Your task to perform on an android device: toggle location history Image 0: 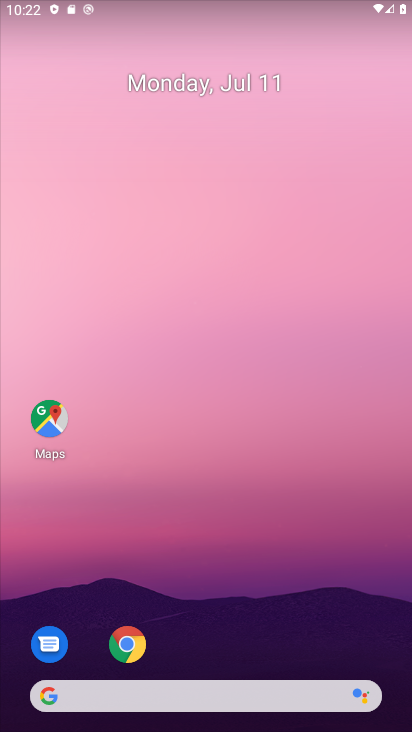
Step 0: drag from (180, 338) to (171, 273)
Your task to perform on an android device: toggle location history Image 1: 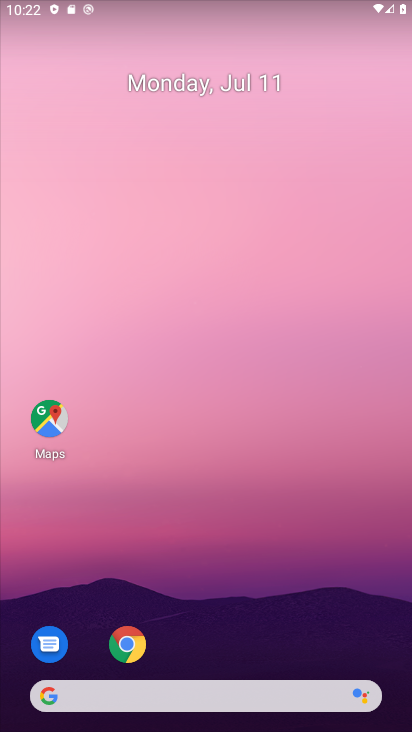
Step 1: drag from (187, 516) to (179, 105)
Your task to perform on an android device: toggle location history Image 2: 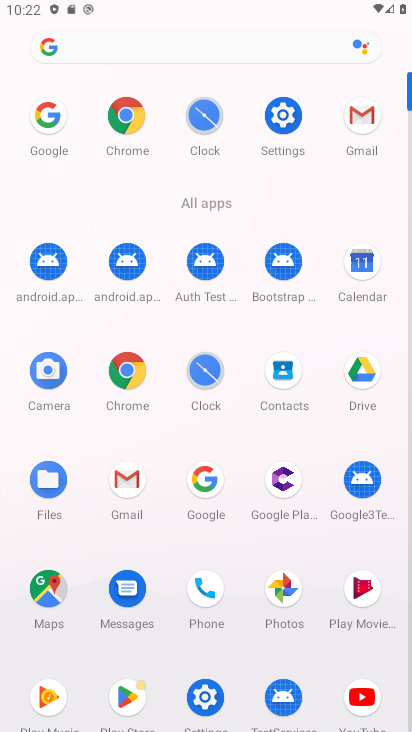
Step 2: click (276, 120)
Your task to perform on an android device: toggle location history Image 3: 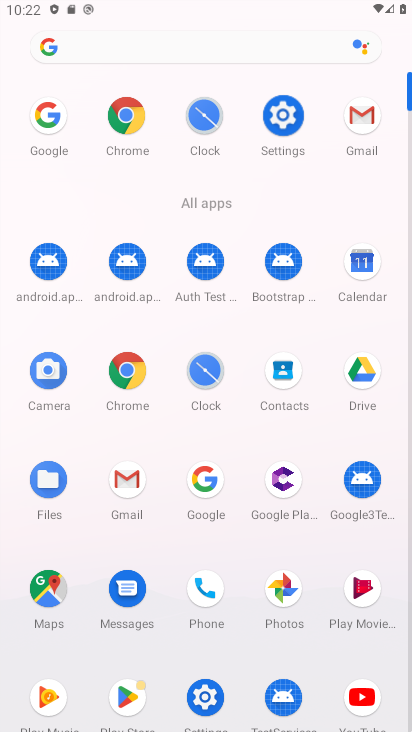
Step 3: click (274, 118)
Your task to perform on an android device: toggle location history Image 4: 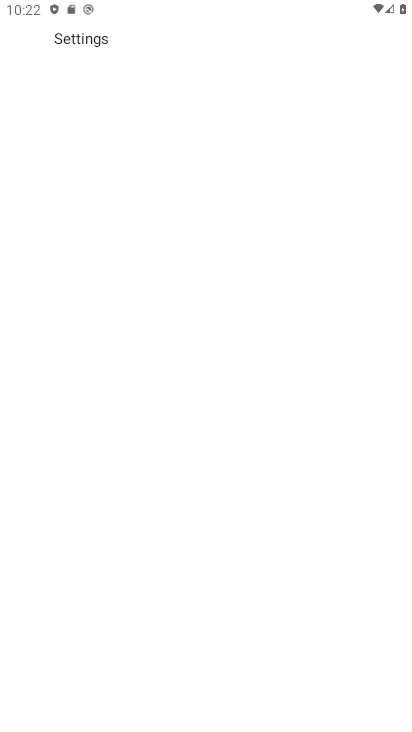
Step 4: click (277, 123)
Your task to perform on an android device: toggle location history Image 5: 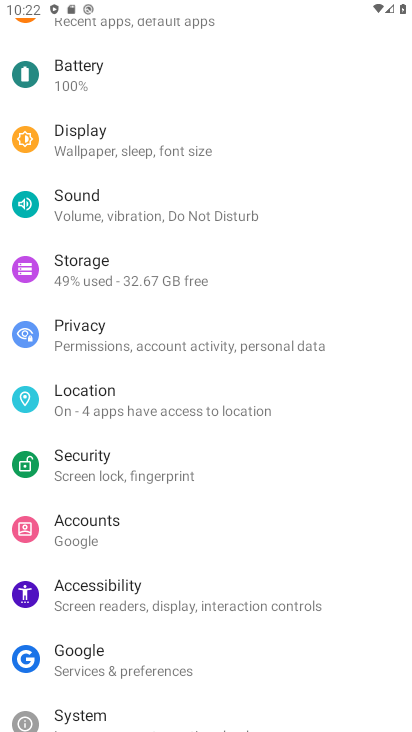
Step 5: drag from (158, 612) to (150, 220)
Your task to perform on an android device: toggle location history Image 6: 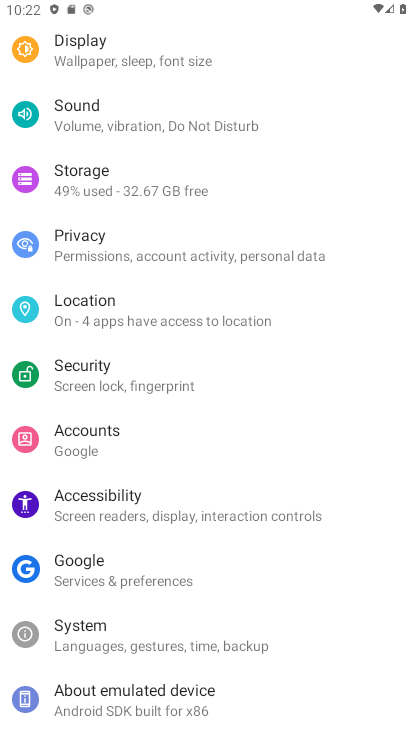
Step 6: click (86, 287)
Your task to perform on an android device: toggle location history Image 7: 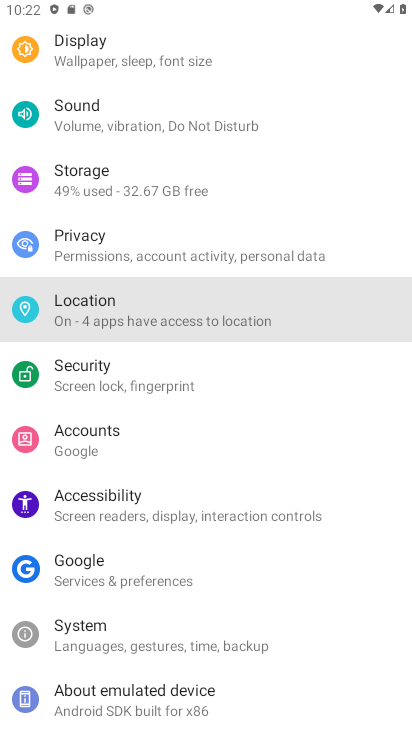
Step 7: click (89, 312)
Your task to perform on an android device: toggle location history Image 8: 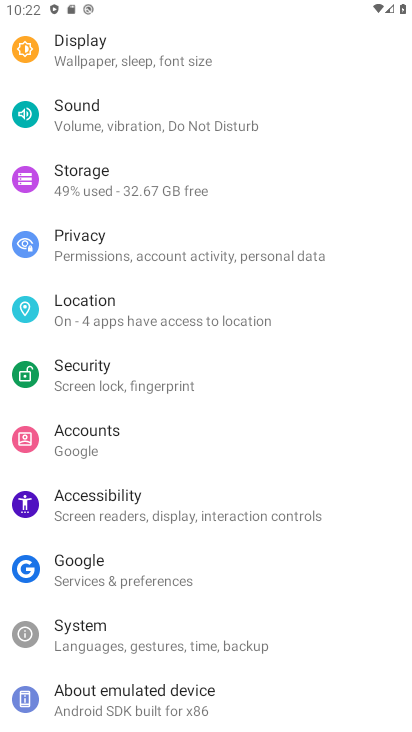
Step 8: click (90, 313)
Your task to perform on an android device: toggle location history Image 9: 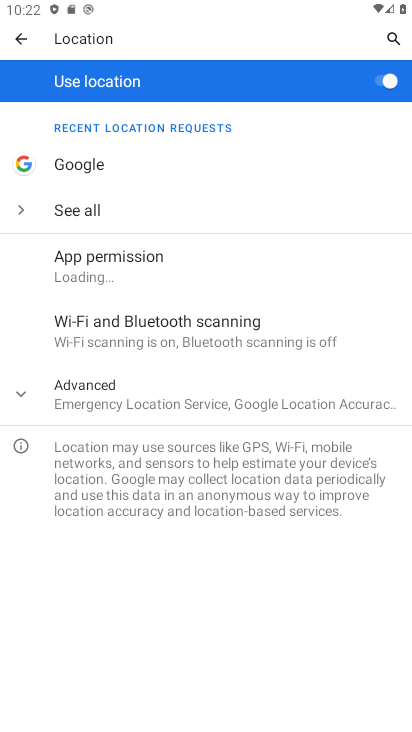
Step 9: click (82, 391)
Your task to perform on an android device: toggle location history Image 10: 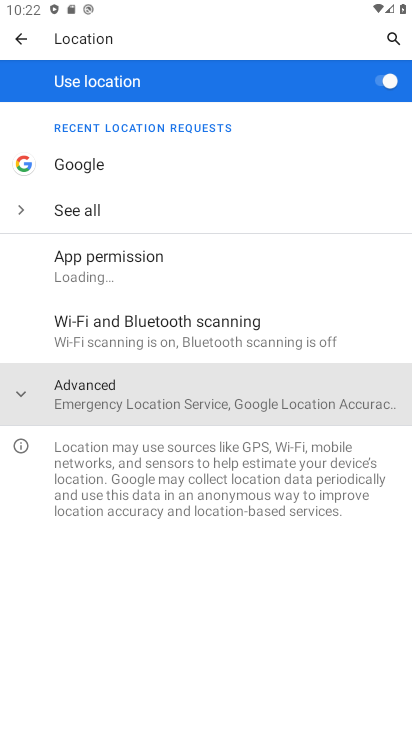
Step 10: click (79, 392)
Your task to perform on an android device: toggle location history Image 11: 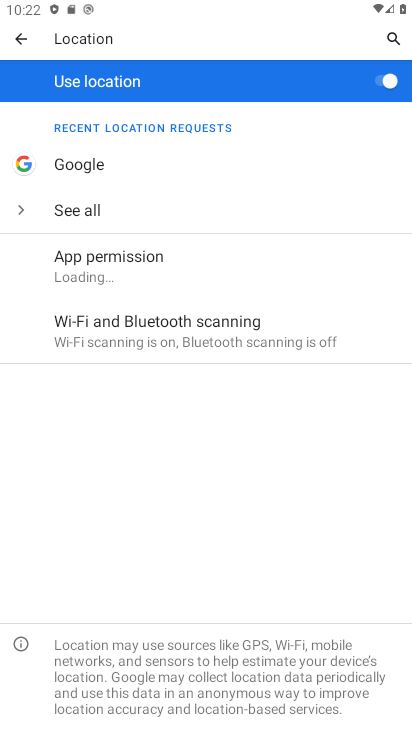
Step 11: click (78, 395)
Your task to perform on an android device: toggle location history Image 12: 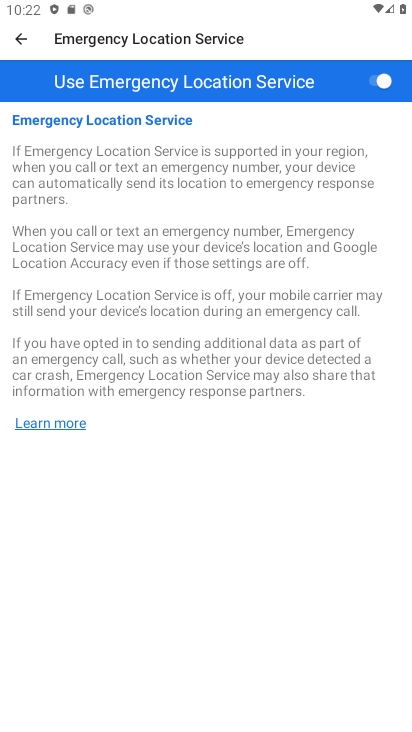
Step 12: click (16, 28)
Your task to perform on an android device: toggle location history Image 13: 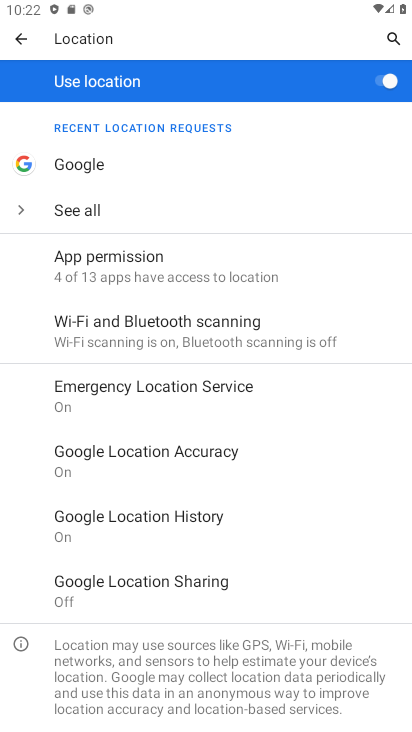
Step 13: click (161, 516)
Your task to perform on an android device: toggle location history Image 14: 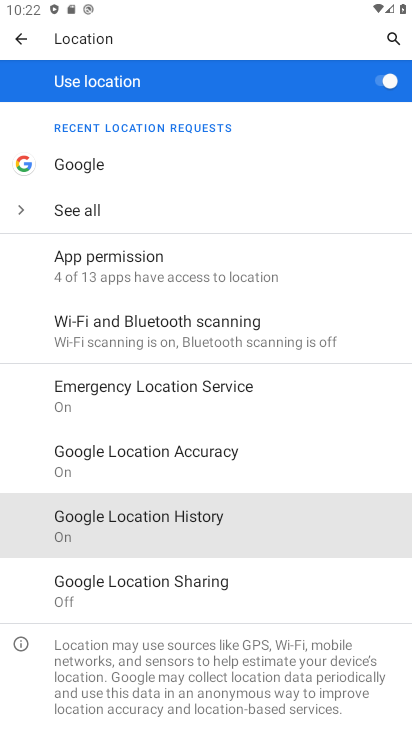
Step 14: click (161, 516)
Your task to perform on an android device: toggle location history Image 15: 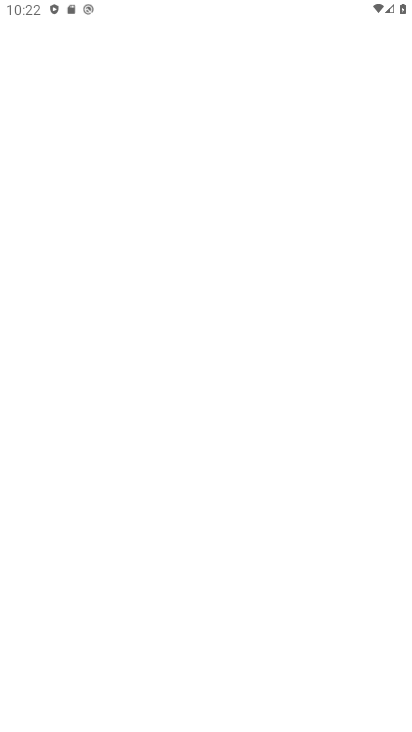
Step 15: click (156, 516)
Your task to perform on an android device: toggle location history Image 16: 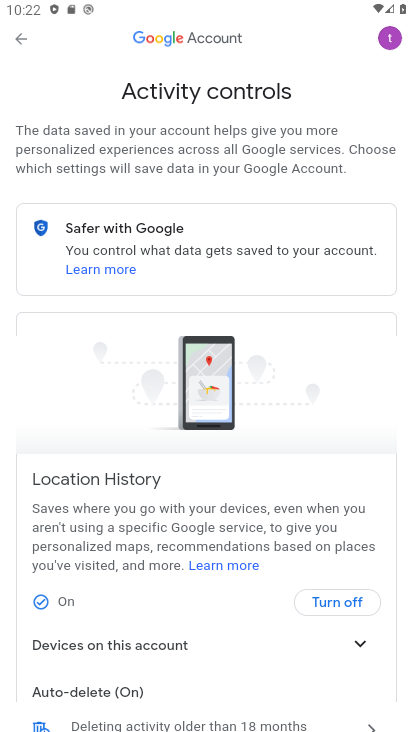
Step 16: click (349, 596)
Your task to perform on an android device: toggle location history Image 17: 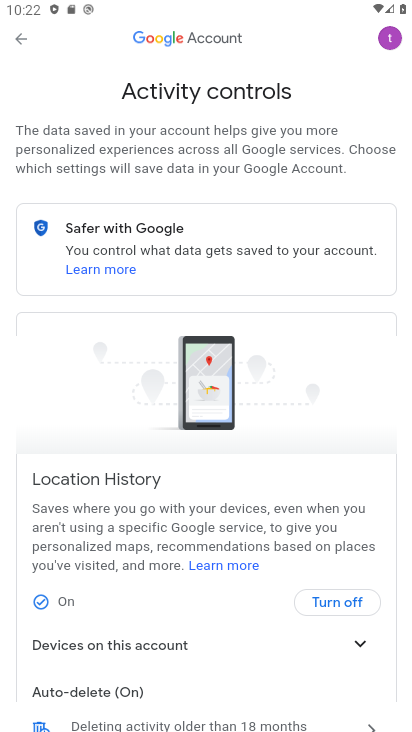
Step 17: click (349, 608)
Your task to perform on an android device: toggle location history Image 18: 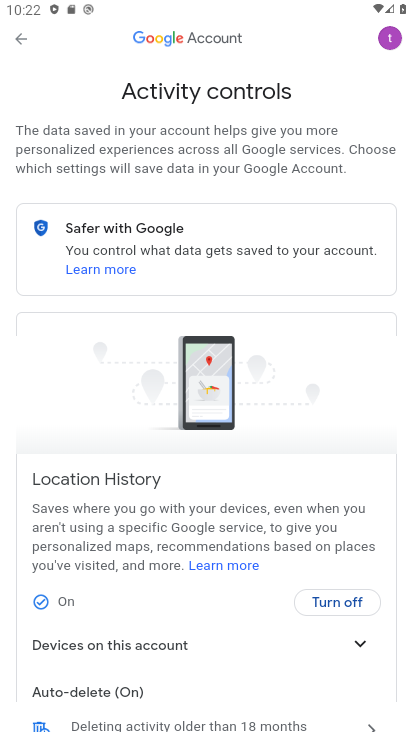
Step 18: click (348, 609)
Your task to perform on an android device: toggle location history Image 19: 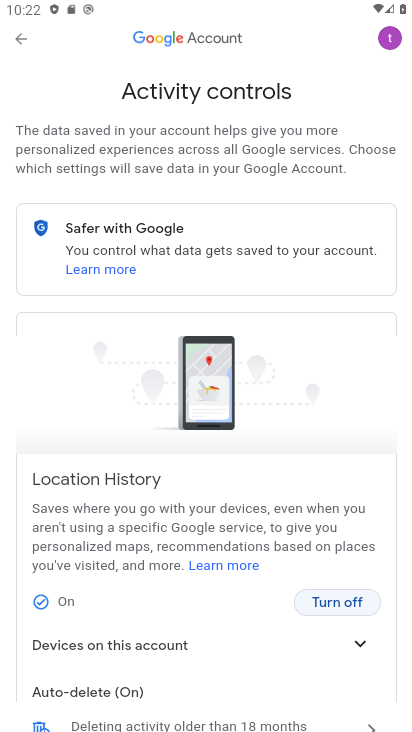
Step 19: click (348, 609)
Your task to perform on an android device: toggle location history Image 20: 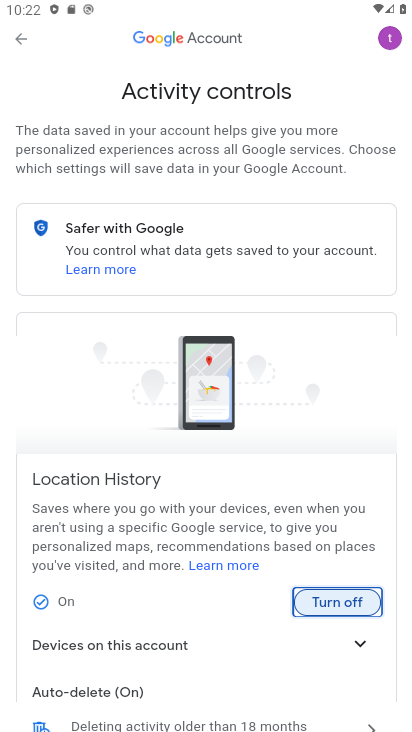
Step 20: task complete